Your task to perform on an android device: delete location history Image 0: 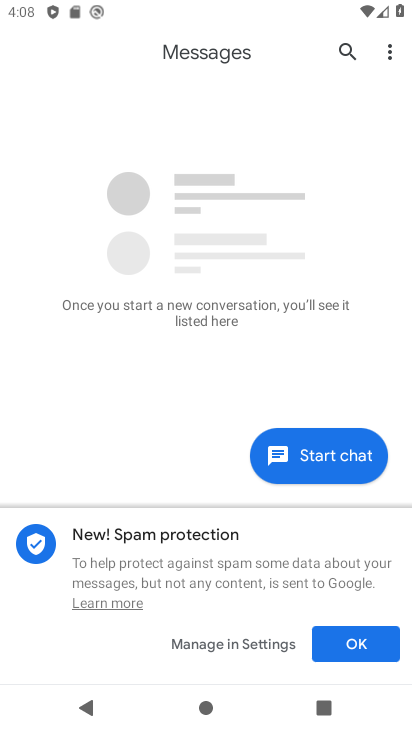
Step 0: press back button
Your task to perform on an android device: delete location history Image 1: 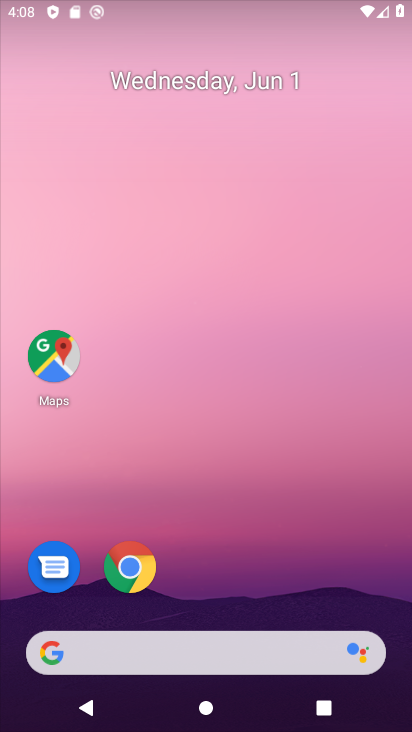
Step 1: drag from (152, 730) to (144, 86)
Your task to perform on an android device: delete location history Image 2: 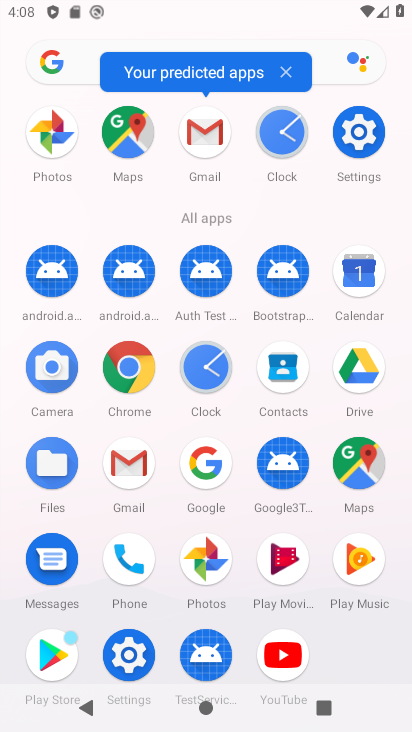
Step 2: click (369, 140)
Your task to perform on an android device: delete location history Image 3: 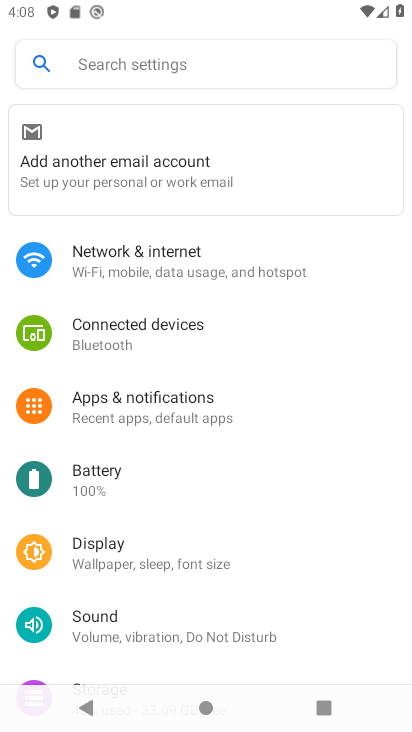
Step 3: drag from (190, 649) to (174, 204)
Your task to perform on an android device: delete location history Image 4: 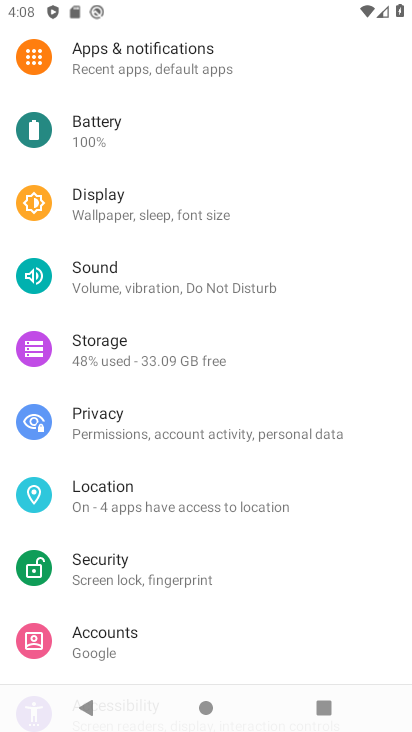
Step 4: click (115, 491)
Your task to perform on an android device: delete location history Image 5: 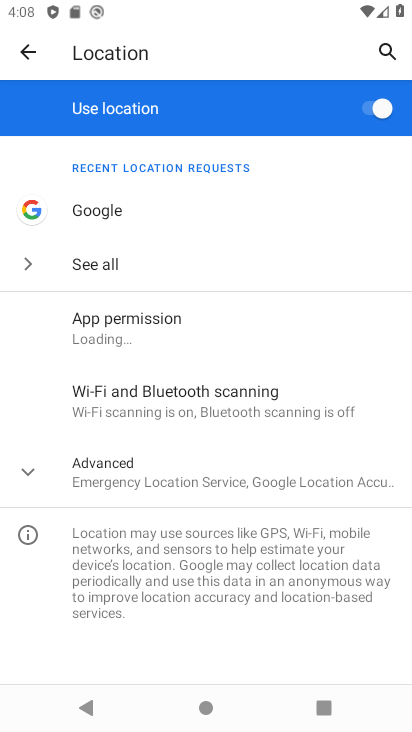
Step 5: click (129, 477)
Your task to perform on an android device: delete location history Image 6: 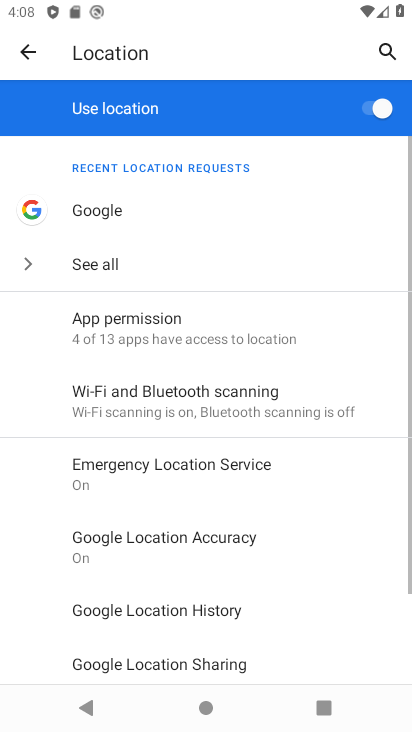
Step 6: click (164, 614)
Your task to perform on an android device: delete location history Image 7: 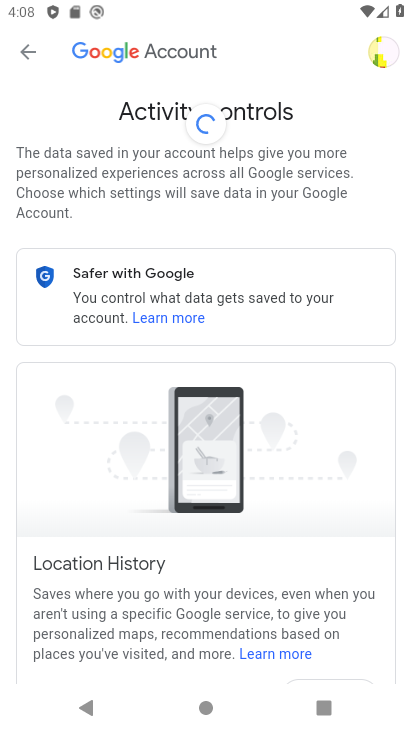
Step 7: drag from (327, 455) to (321, 209)
Your task to perform on an android device: delete location history Image 8: 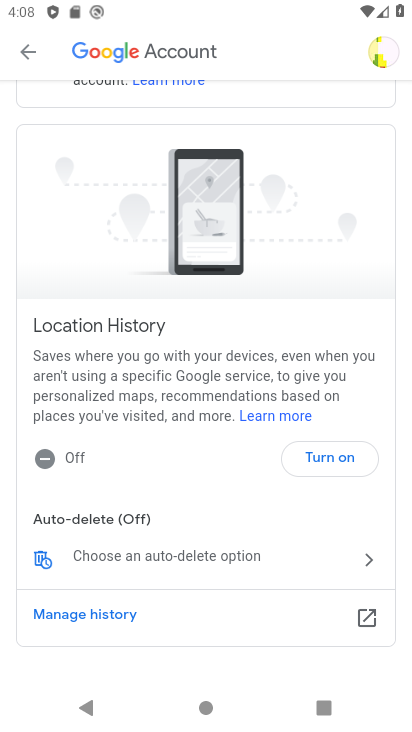
Step 8: click (214, 554)
Your task to perform on an android device: delete location history Image 9: 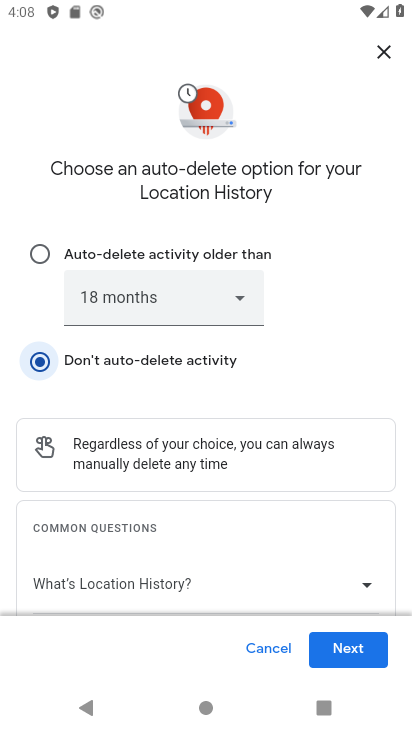
Step 9: click (241, 300)
Your task to perform on an android device: delete location history Image 10: 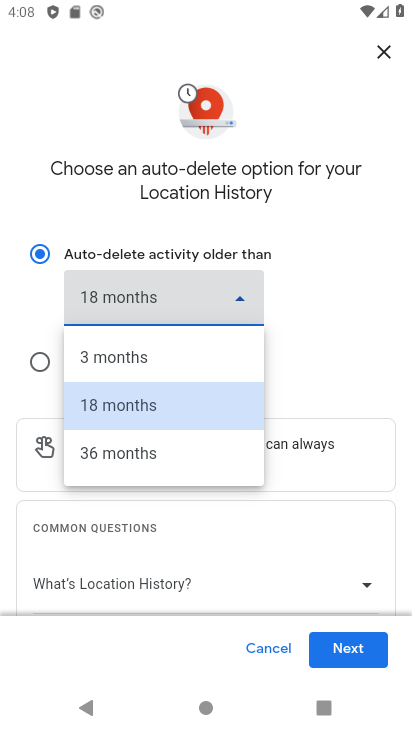
Step 10: click (114, 350)
Your task to perform on an android device: delete location history Image 11: 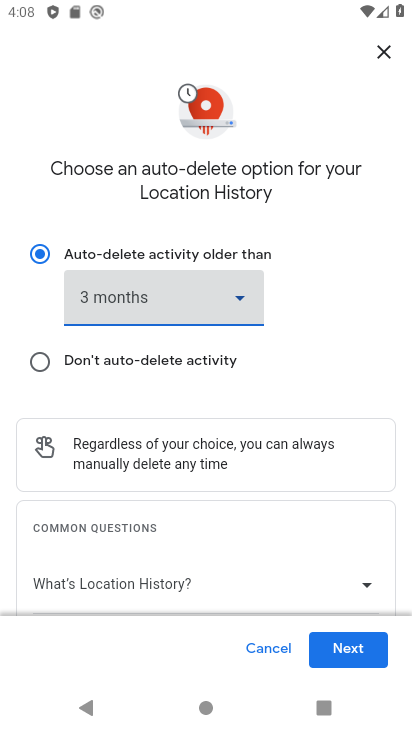
Step 11: click (369, 661)
Your task to perform on an android device: delete location history Image 12: 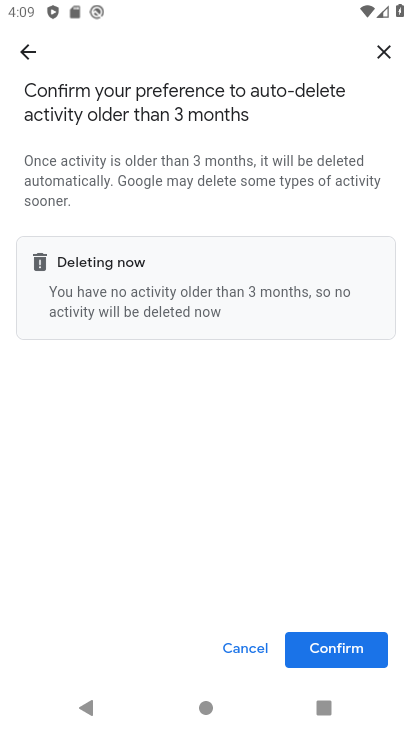
Step 12: click (354, 653)
Your task to perform on an android device: delete location history Image 13: 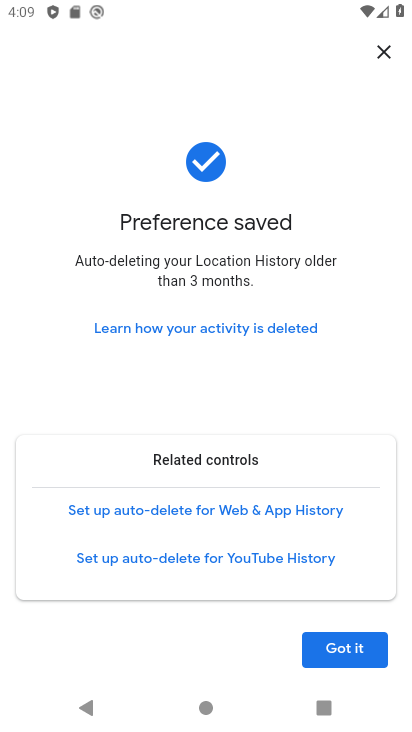
Step 13: click (356, 652)
Your task to perform on an android device: delete location history Image 14: 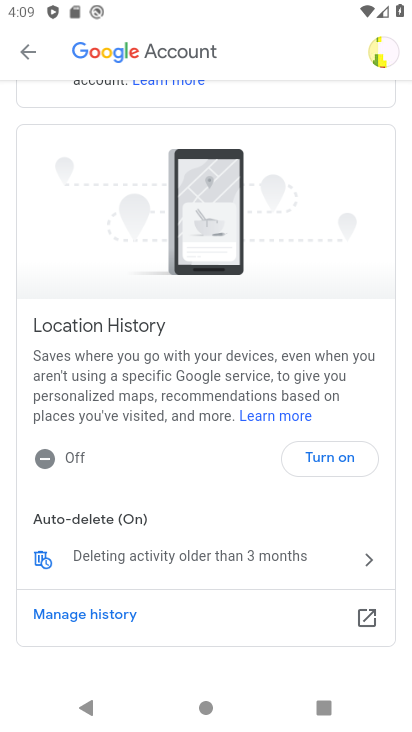
Step 14: task complete